Your task to perform on an android device: Open Yahoo.com Image 0: 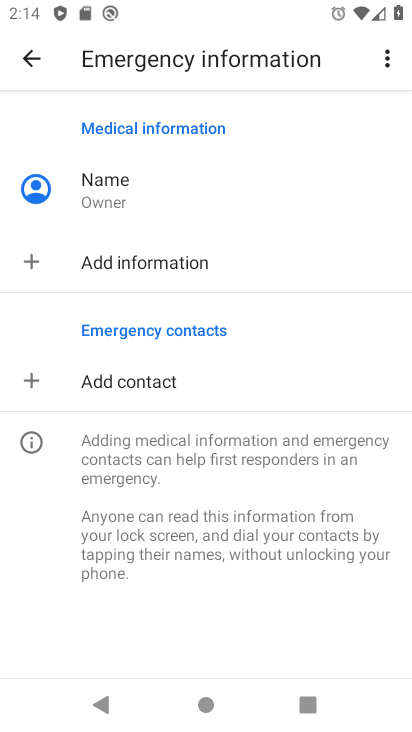
Step 0: press home button
Your task to perform on an android device: Open Yahoo.com Image 1: 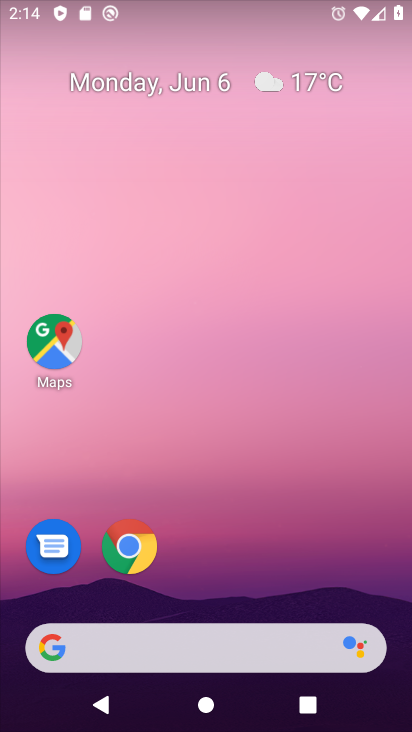
Step 1: click (122, 540)
Your task to perform on an android device: Open Yahoo.com Image 2: 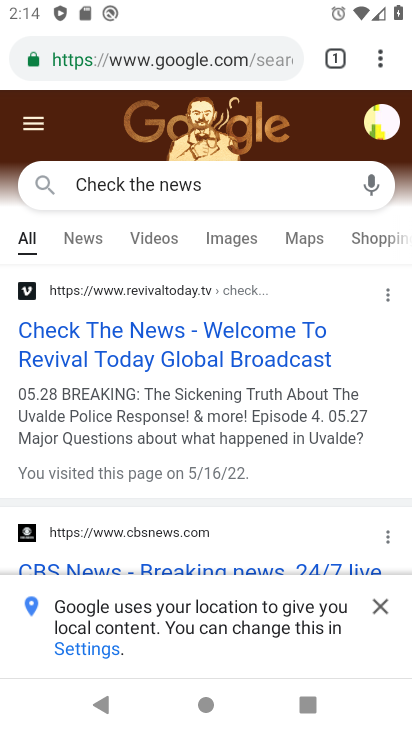
Step 2: click (384, 61)
Your task to perform on an android device: Open Yahoo.com Image 3: 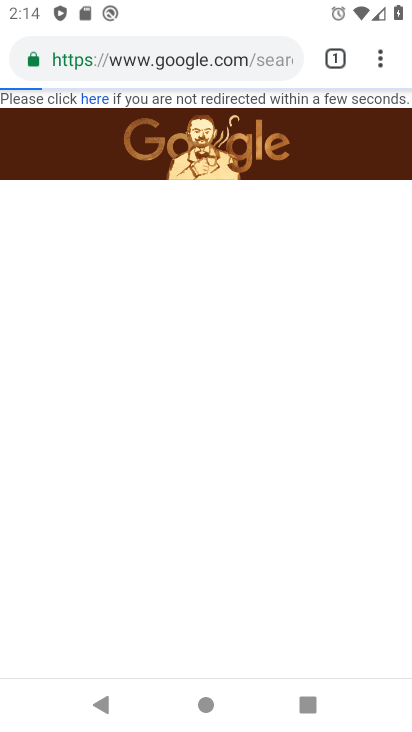
Step 3: click (383, 57)
Your task to perform on an android device: Open Yahoo.com Image 4: 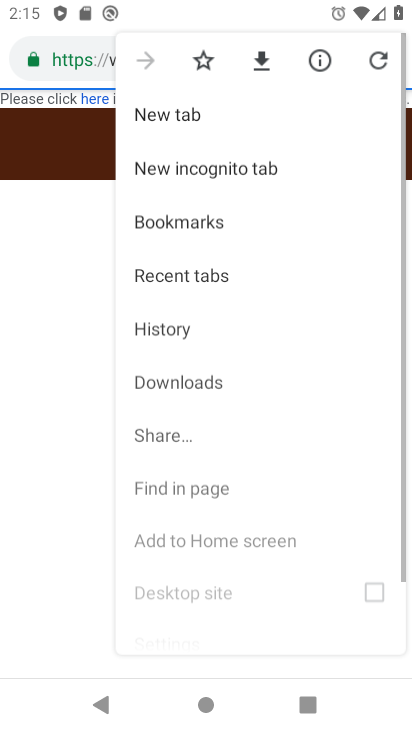
Step 4: click (368, 59)
Your task to perform on an android device: Open Yahoo.com Image 5: 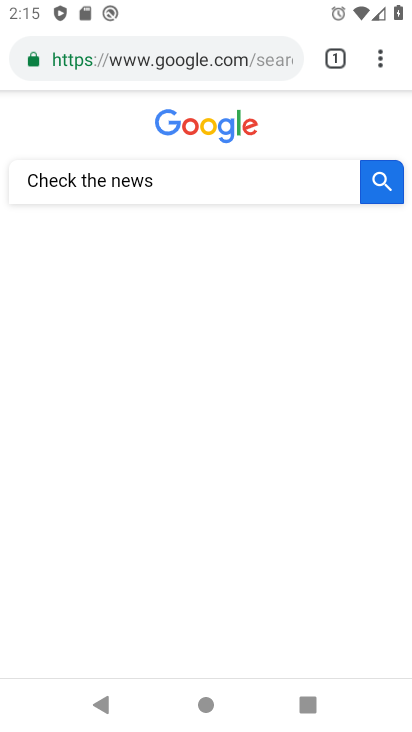
Step 5: click (214, 104)
Your task to perform on an android device: Open Yahoo.com Image 6: 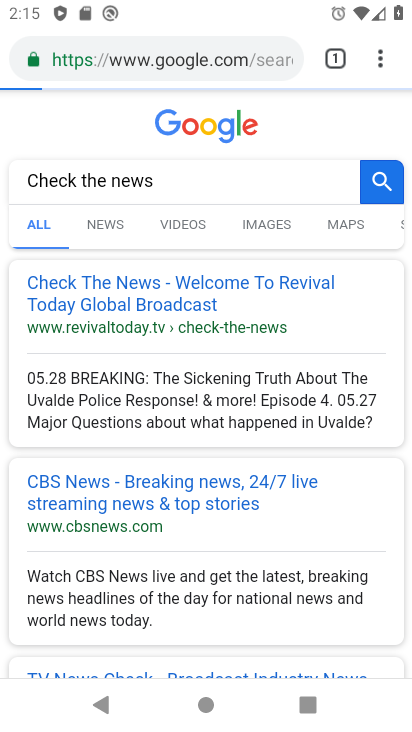
Step 6: click (368, 56)
Your task to perform on an android device: Open Yahoo.com Image 7: 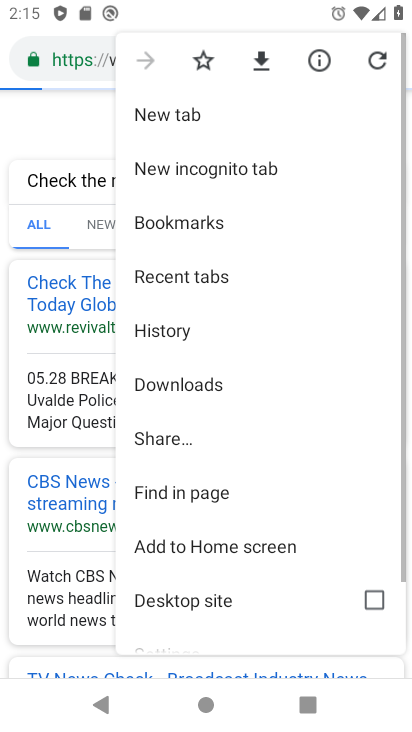
Step 7: click (168, 105)
Your task to perform on an android device: Open Yahoo.com Image 8: 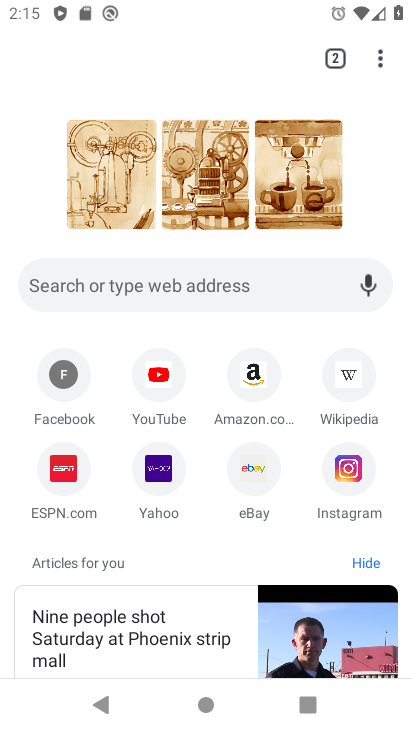
Step 8: click (154, 469)
Your task to perform on an android device: Open Yahoo.com Image 9: 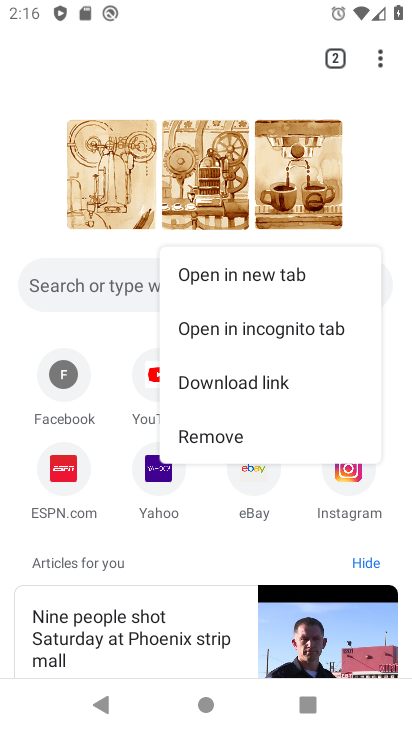
Step 9: click (151, 468)
Your task to perform on an android device: Open Yahoo.com Image 10: 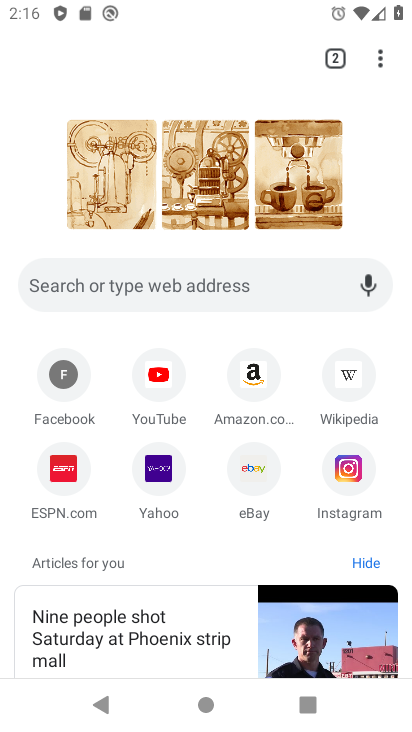
Step 10: click (151, 466)
Your task to perform on an android device: Open Yahoo.com Image 11: 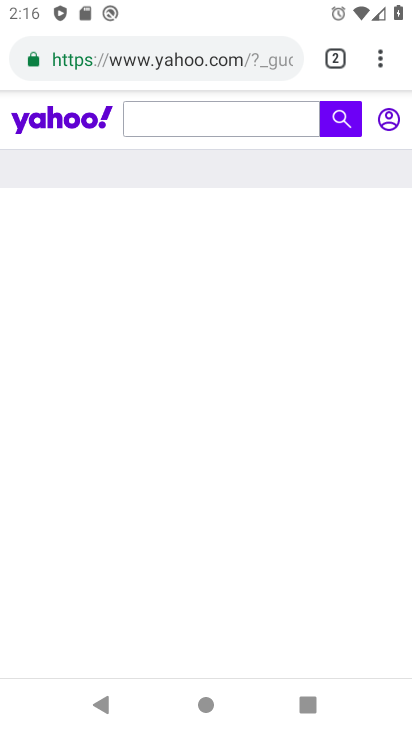
Step 11: task complete